Your task to perform on an android device: Forward the most recent email from tau.maisiebrenna.1654798856750@gmail.com to: tau.owenbrennan.1654798856750@gmail.com	. Image 0: 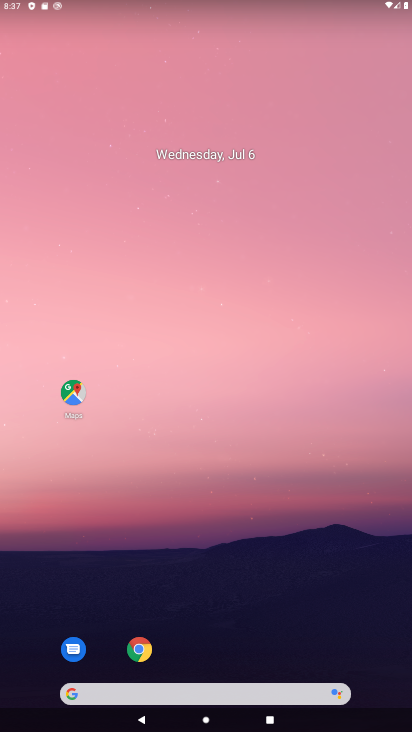
Step 0: drag from (330, 671) to (314, 98)
Your task to perform on an android device: Forward the most recent email from tau.maisiebrenna.1654798856750@gmail.com to: tau.owenbrennan.1654798856750@gmail.com	. Image 1: 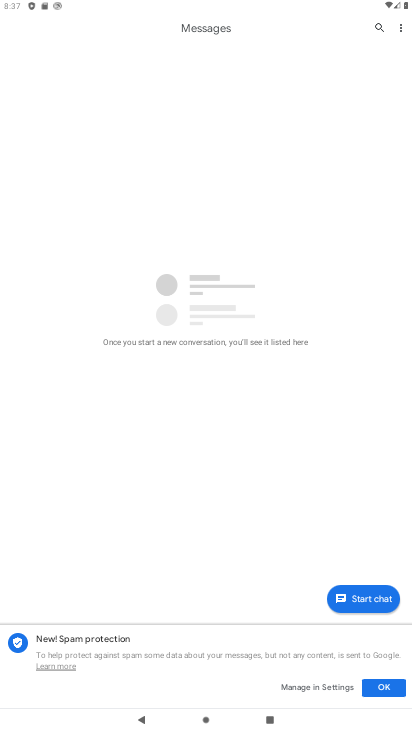
Step 1: press home button
Your task to perform on an android device: Forward the most recent email from tau.maisiebrenna.1654798856750@gmail.com to: tau.owenbrennan.1654798856750@gmail.com	. Image 2: 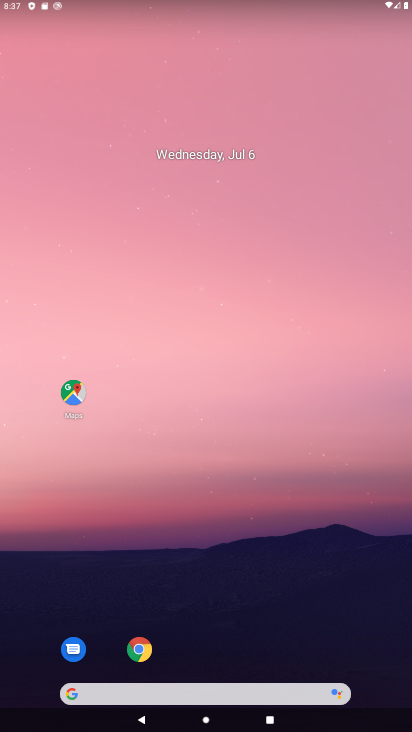
Step 2: drag from (298, 610) to (301, 97)
Your task to perform on an android device: Forward the most recent email from tau.maisiebrenna.1654798856750@gmail.com to: tau.owenbrennan.1654798856750@gmail.com	. Image 3: 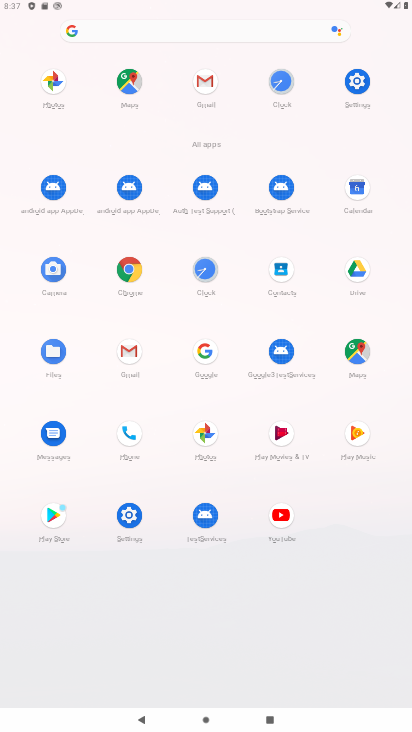
Step 3: click (193, 87)
Your task to perform on an android device: Forward the most recent email from tau.maisiebrenna.1654798856750@gmail.com to: tau.owenbrennan.1654798856750@gmail.com	. Image 4: 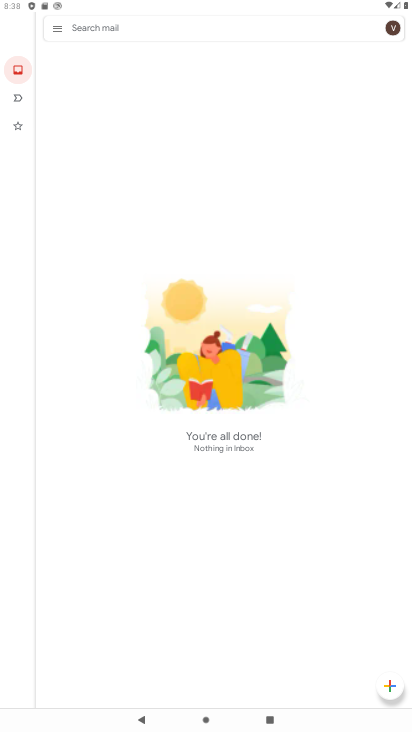
Step 4: task complete